Your task to perform on an android device: Open Wikipedia Image 0: 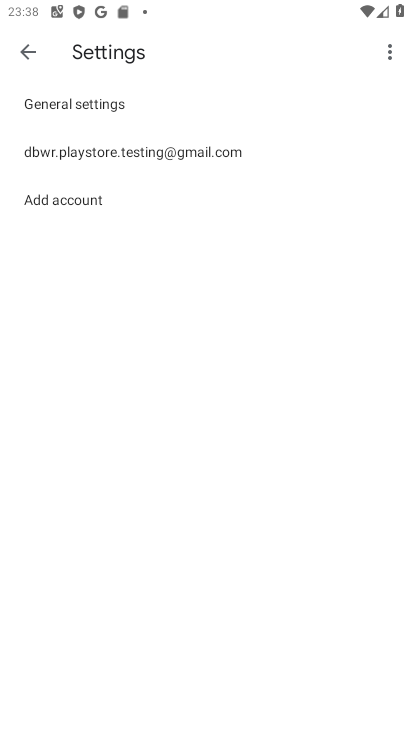
Step 0: press home button
Your task to perform on an android device: Open Wikipedia Image 1: 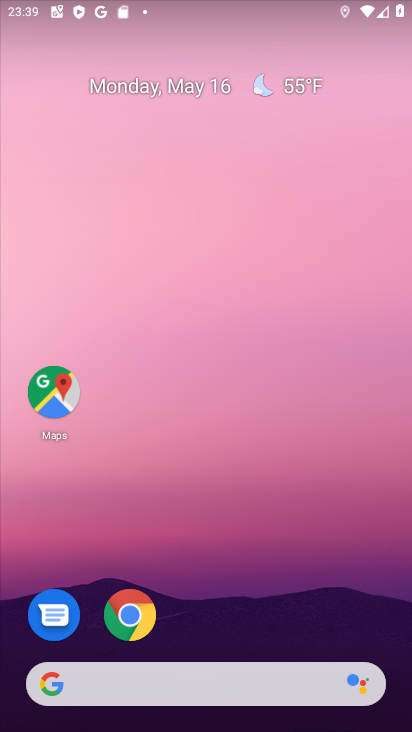
Step 1: click (115, 629)
Your task to perform on an android device: Open Wikipedia Image 2: 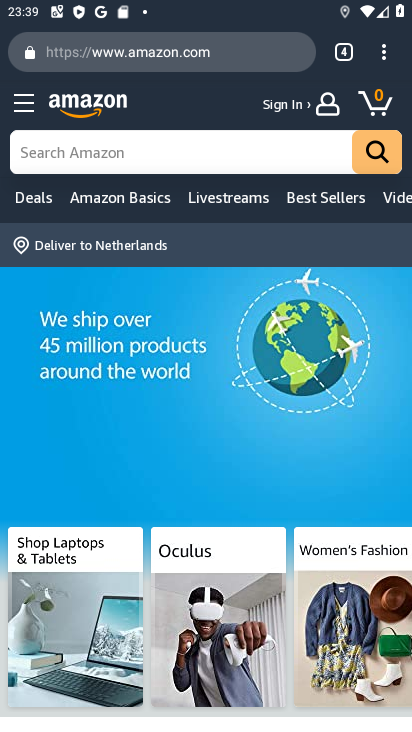
Step 2: click (333, 49)
Your task to perform on an android device: Open Wikipedia Image 3: 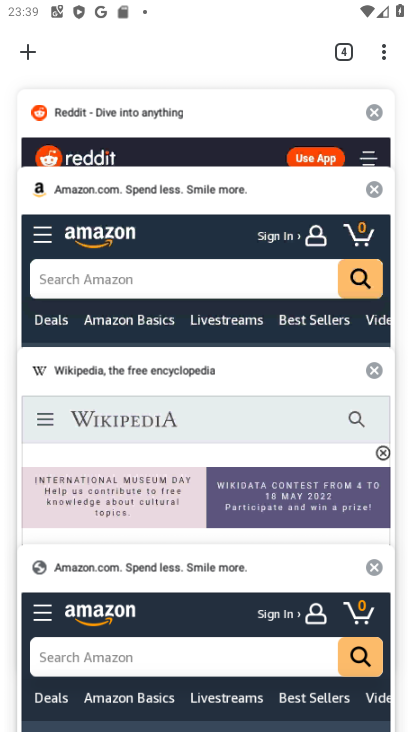
Step 3: click (86, 374)
Your task to perform on an android device: Open Wikipedia Image 4: 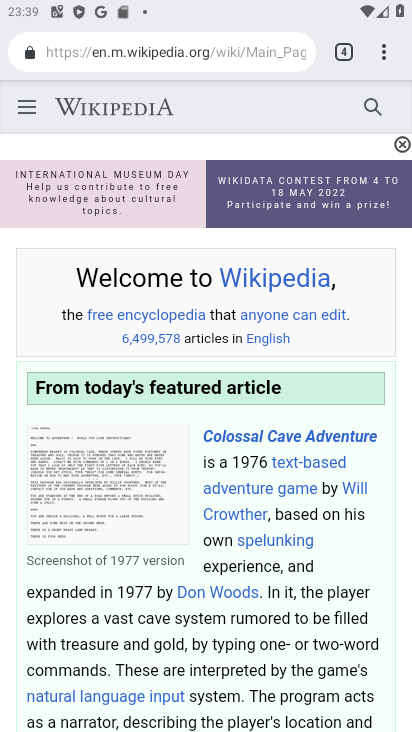
Step 4: task complete